Your task to perform on an android device: change keyboard looks Image 0: 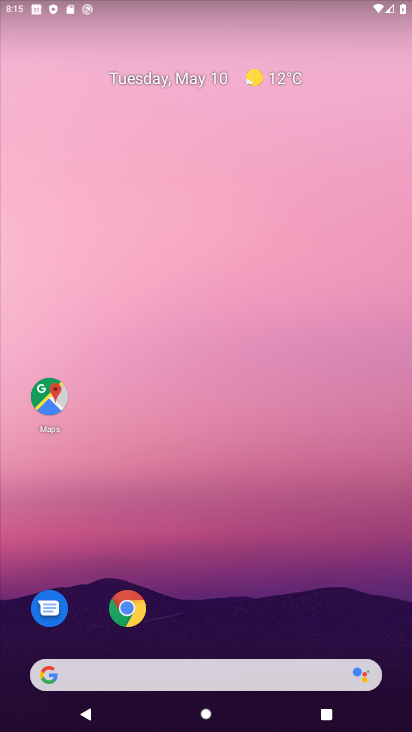
Step 0: drag from (207, 664) to (191, 127)
Your task to perform on an android device: change keyboard looks Image 1: 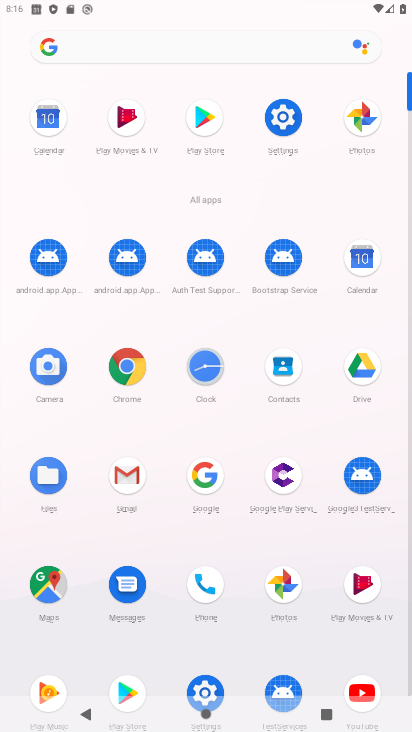
Step 1: click (203, 684)
Your task to perform on an android device: change keyboard looks Image 2: 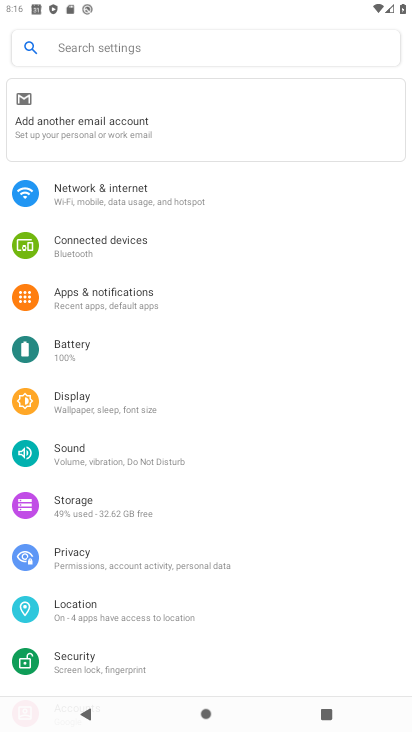
Step 2: drag from (103, 644) to (157, 156)
Your task to perform on an android device: change keyboard looks Image 3: 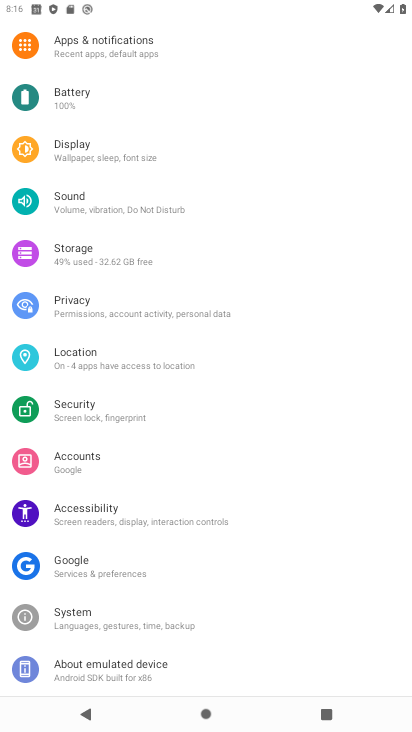
Step 3: click (126, 616)
Your task to perform on an android device: change keyboard looks Image 4: 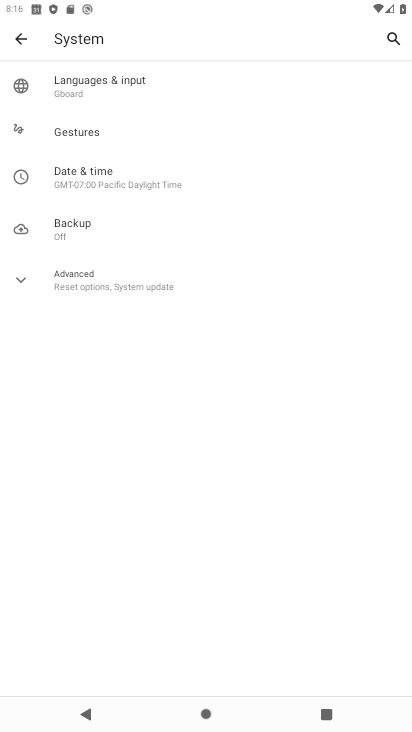
Step 4: click (113, 89)
Your task to perform on an android device: change keyboard looks Image 5: 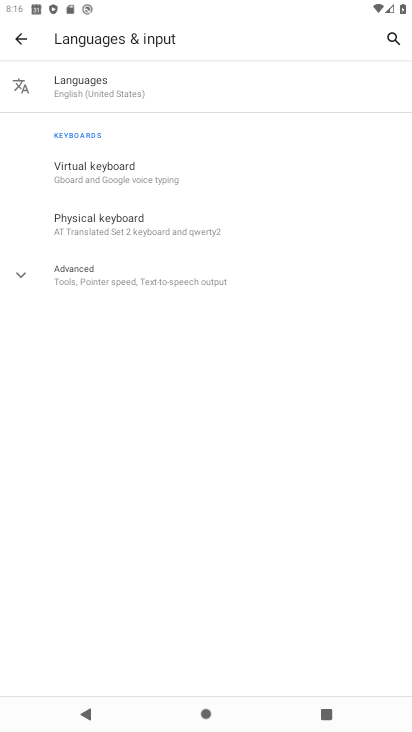
Step 5: click (113, 176)
Your task to perform on an android device: change keyboard looks Image 6: 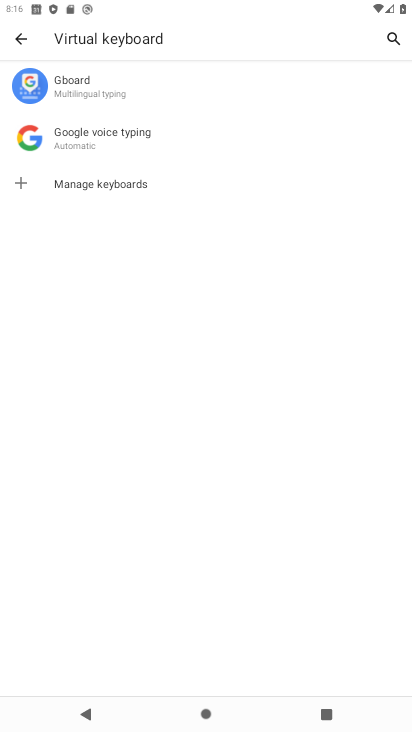
Step 6: click (81, 96)
Your task to perform on an android device: change keyboard looks Image 7: 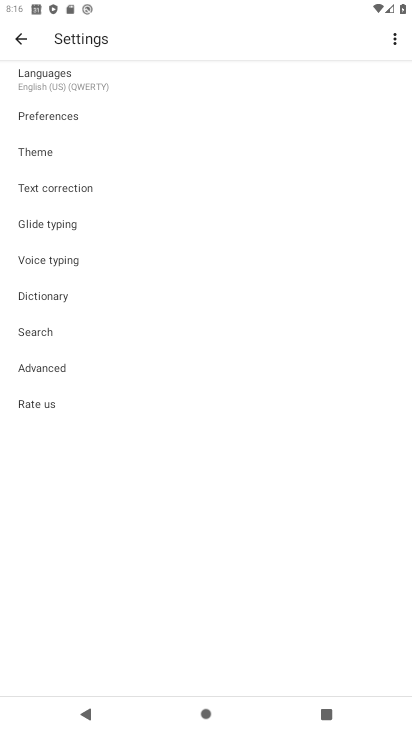
Step 7: click (26, 154)
Your task to perform on an android device: change keyboard looks Image 8: 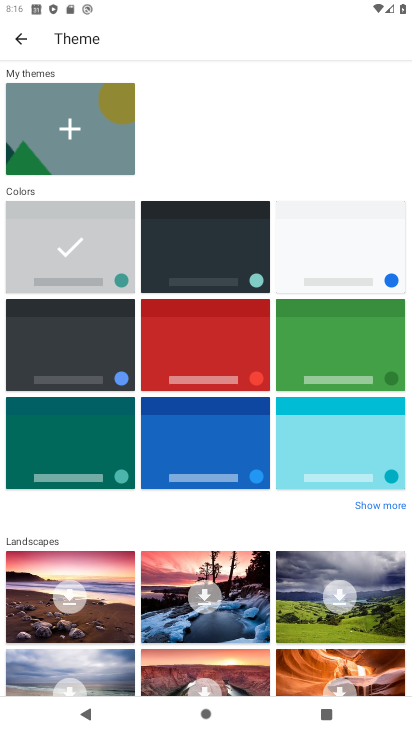
Step 8: click (227, 449)
Your task to perform on an android device: change keyboard looks Image 9: 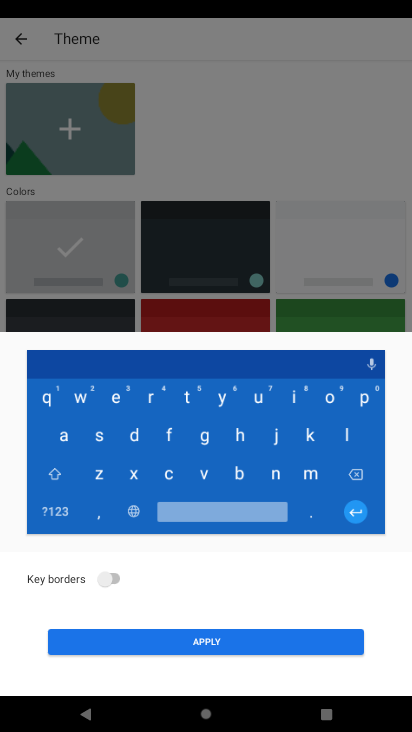
Step 9: click (199, 639)
Your task to perform on an android device: change keyboard looks Image 10: 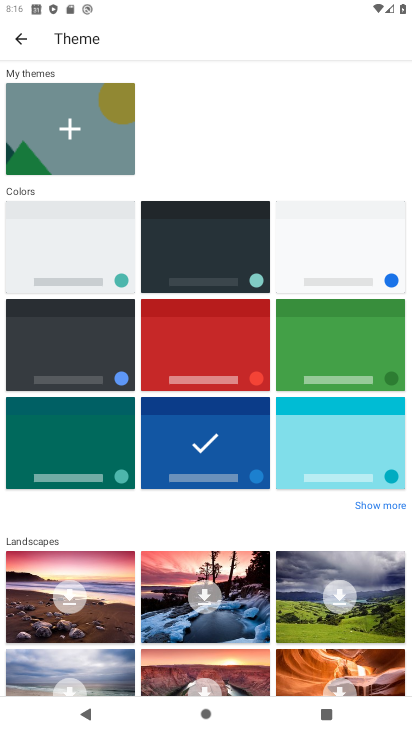
Step 10: task complete